Your task to perform on an android device: Search for pizza restaurants on Maps Image 0: 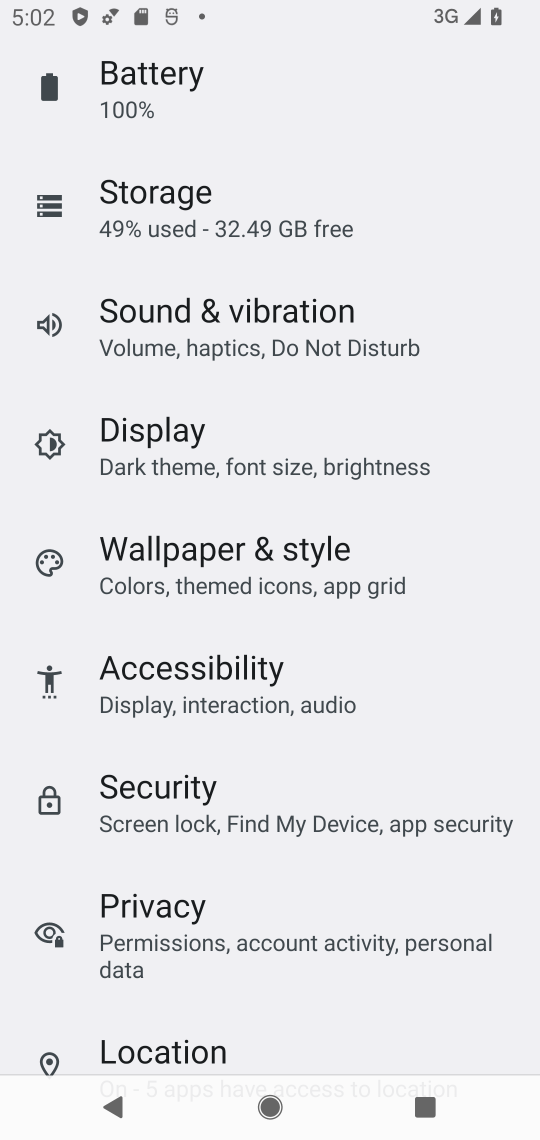
Step 0: press home button
Your task to perform on an android device: Search for pizza restaurants on Maps Image 1: 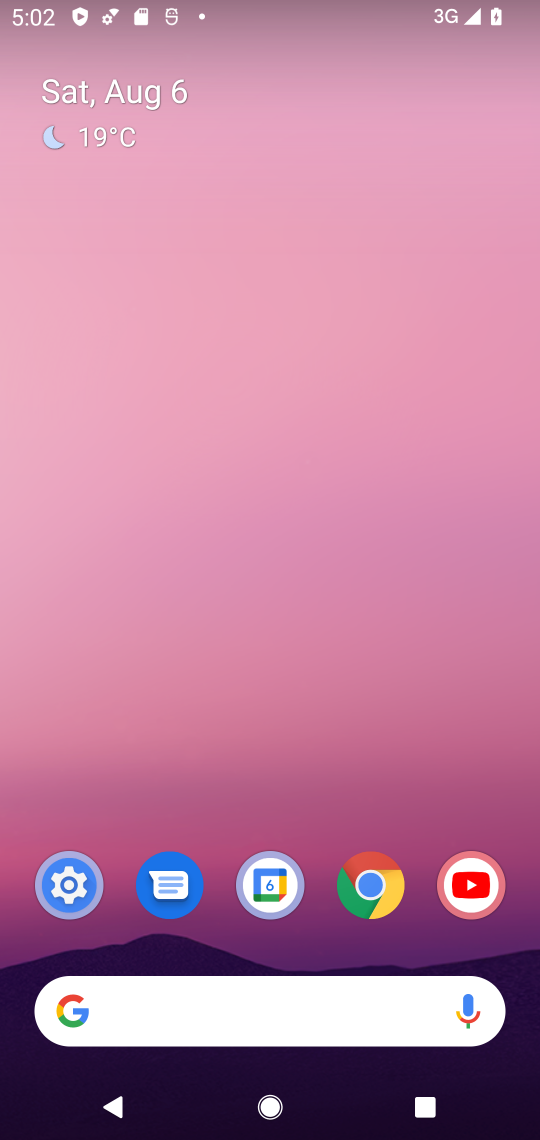
Step 1: drag from (434, 971) to (235, 24)
Your task to perform on an android device: Search for pizza restaurants on Maps Image 2: 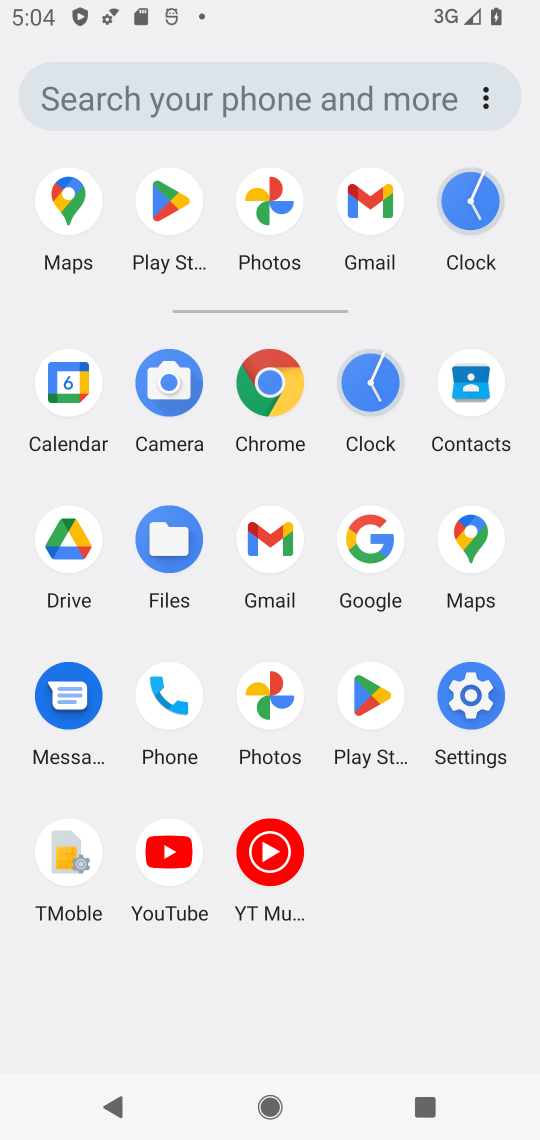
Step 2: click (497, 551)
Your task to perform on an android device: Search for pizza restaurants on Maps Image 3: 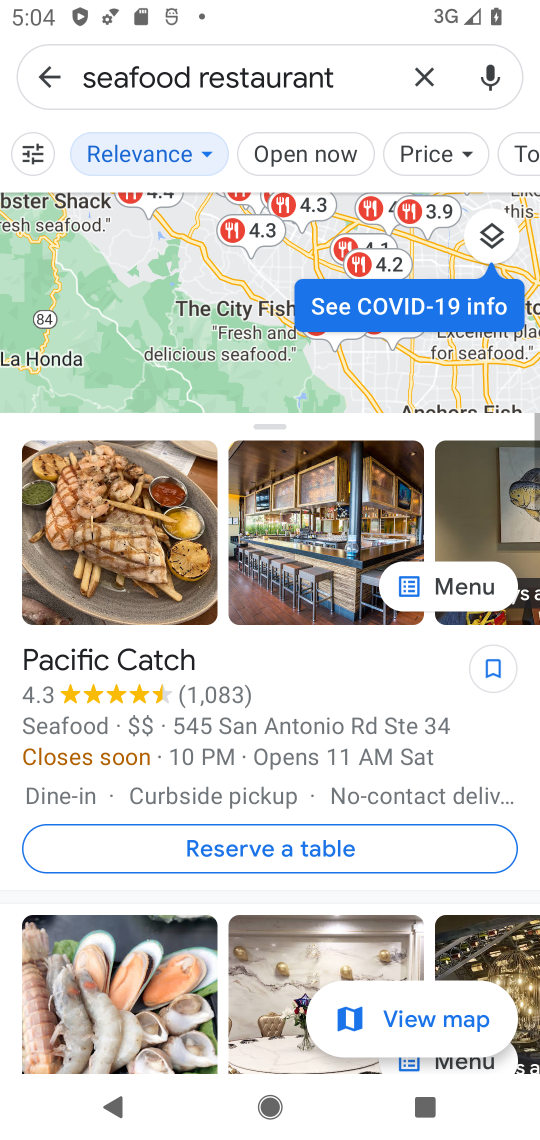
Step 3: click (416, 74)
Your task to perform on an android device: Search for pizza restaurants on Maps Image 4: 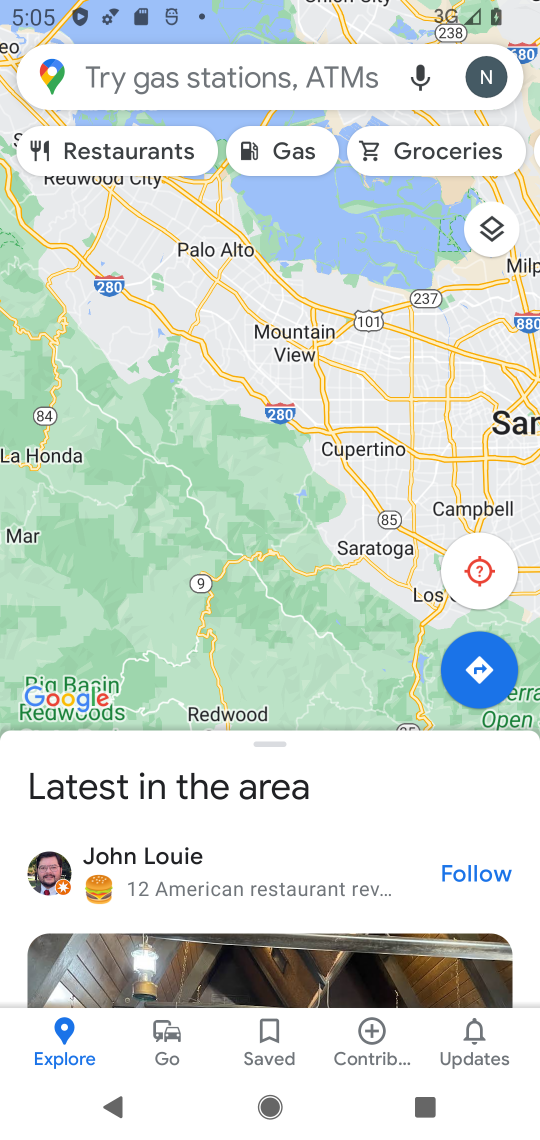
Step 4: click (232, 70)
Your task to perform on an android device: Search for pizza restaurants on Maps Image 5: 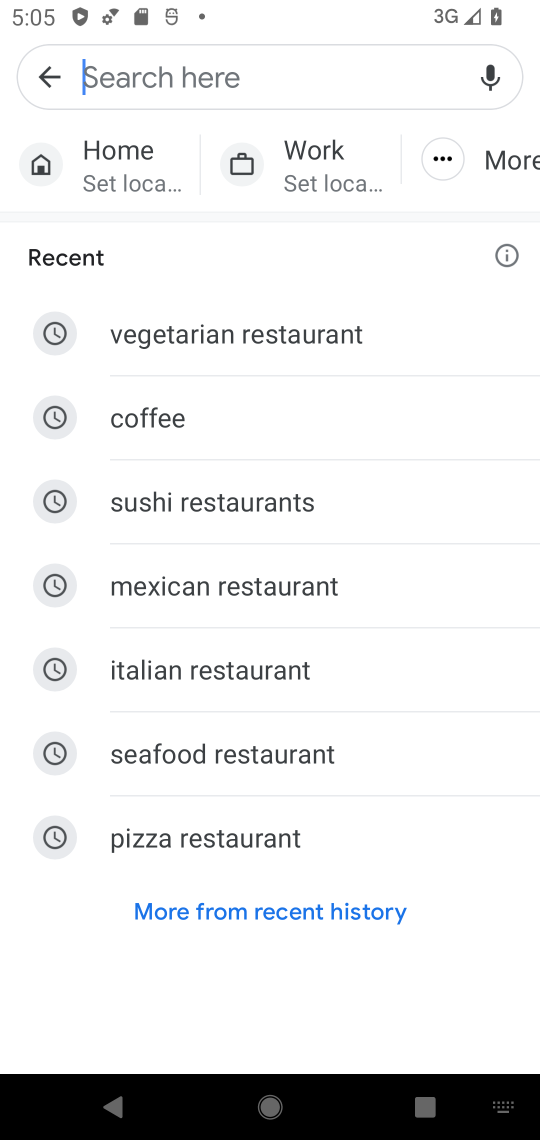
Step 5: click (167, 829)
Your task to perform on an android device: Search for pizza restaurants on Maps Image 6: 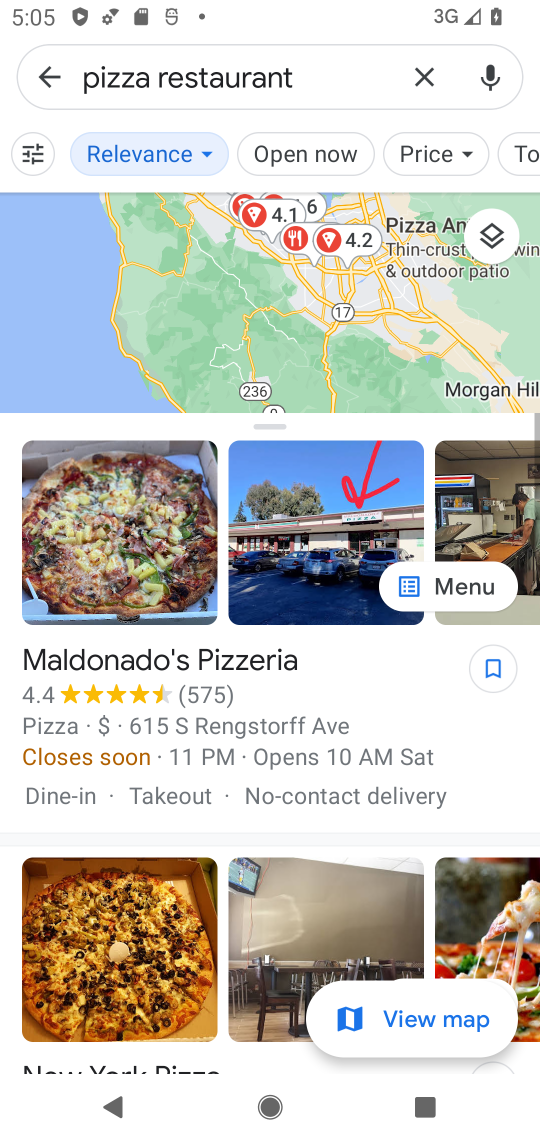
Step 6: task complete